Your task to perform on an android device: open sync settings in chrome Image 0: 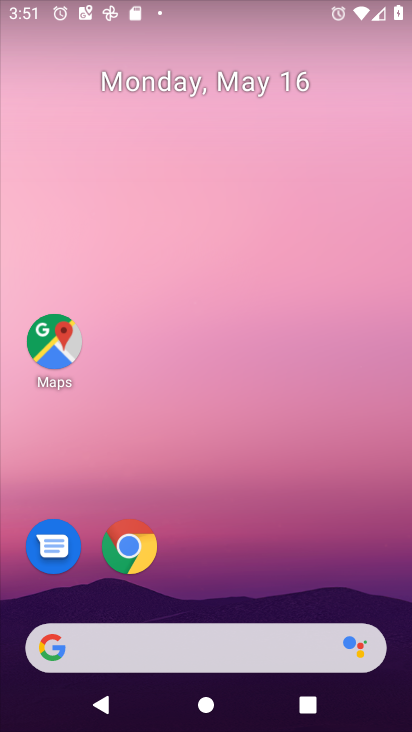
Step 0: drag from (383, 574) to (376, 42)
Your task to perform on an android device: open sync settings in chrome Image 1: 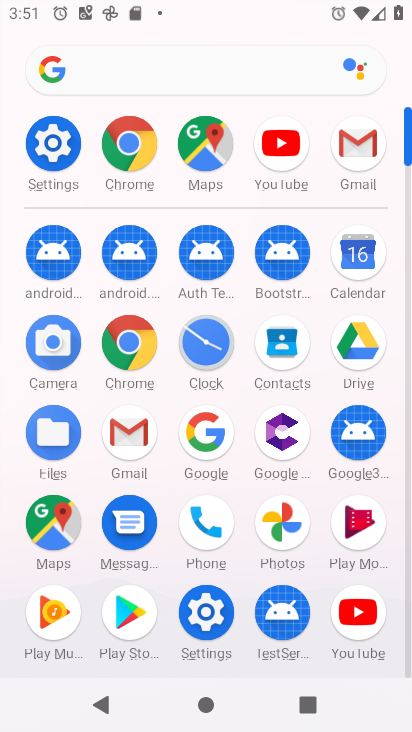
Step 1: click (135, 344)
Your task to perform on an android device: open sync settings in chrome Image 2: 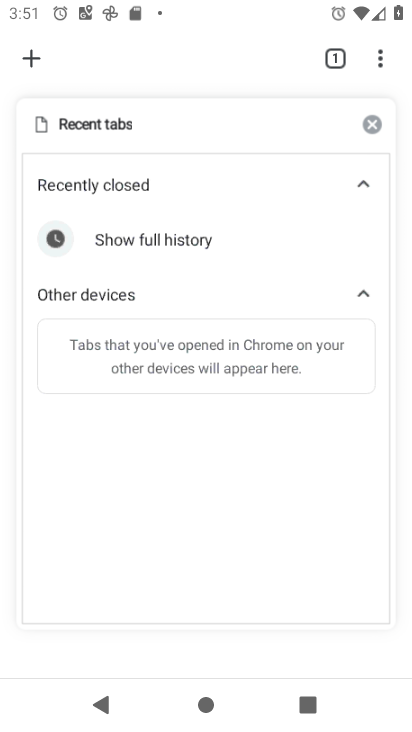
Step 2: click (379, 66)
Your task to perform on an android device: open sync settings in chrome Image 3: 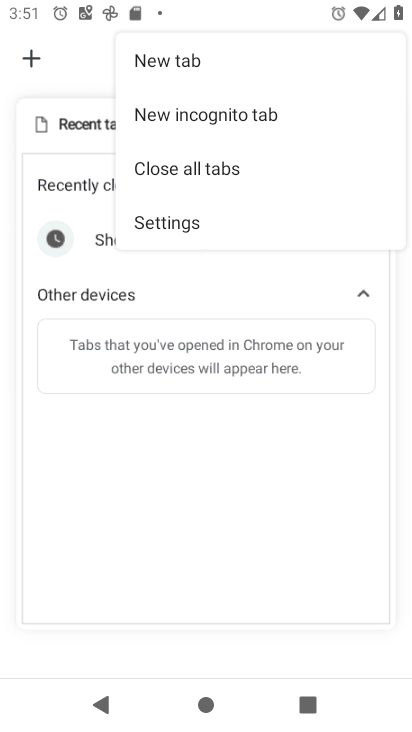
Step 3: click (266, 224)
Your task to perform on an android device: open sync settings in chrome Image 4: 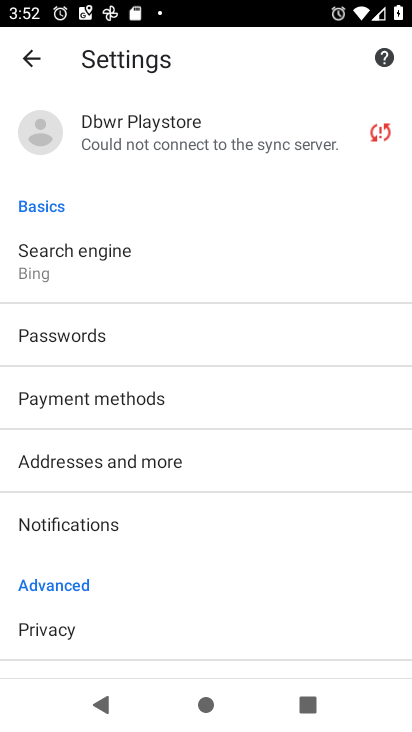
Step 4: drag from (285, 574) to (282, 418)
Your task to perform on an android device: open sync settings in chrome Image 5: 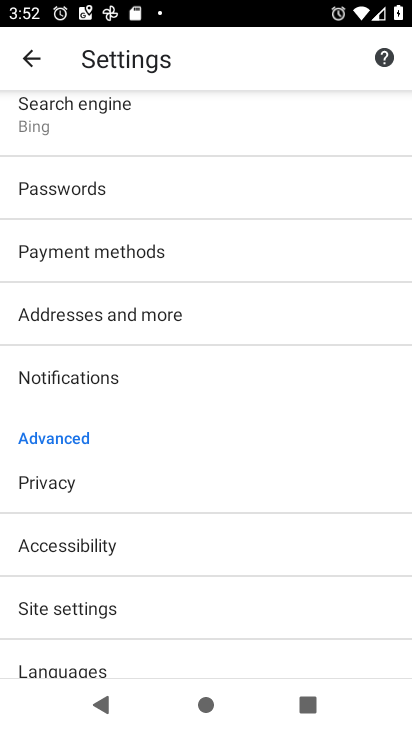
Step 5: drag from (296, 561) to (328, 414)
Your task to perform on an android device: open sync settings in chrome Image 6: 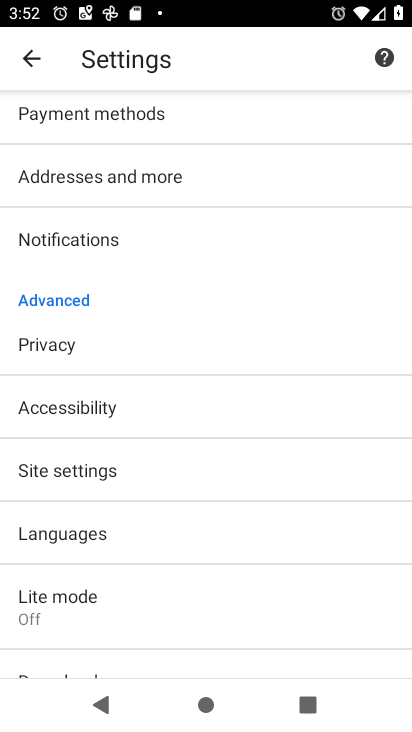
Step 6: drag from (273, 621) to (283, 433)
Your task to perform on an android device: open sync settings in chrome Image 7: 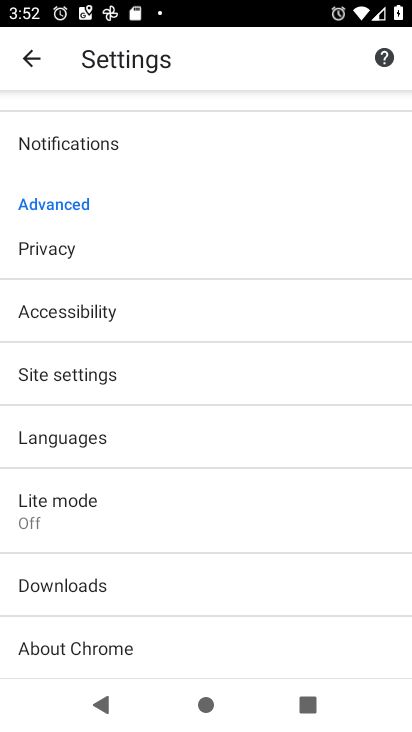
Step 7: drag from (247, 648) to (246, 492)
Your task to perform on an android device: open sync settings in chrome Image 8: 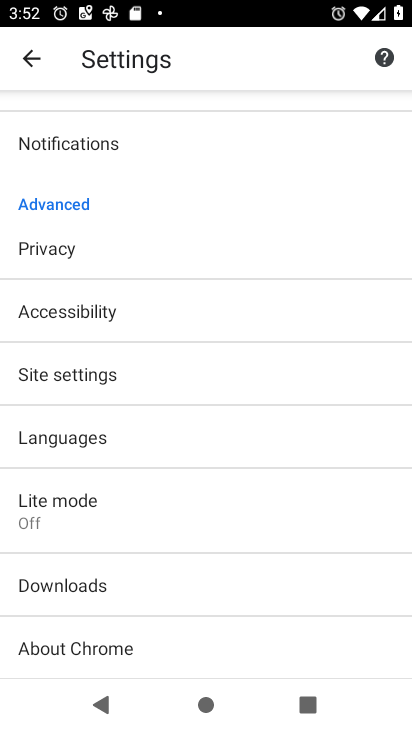
Step 8: click (185, 383)
Your task to perform on an android device: open sync settings in chrome Image 9: 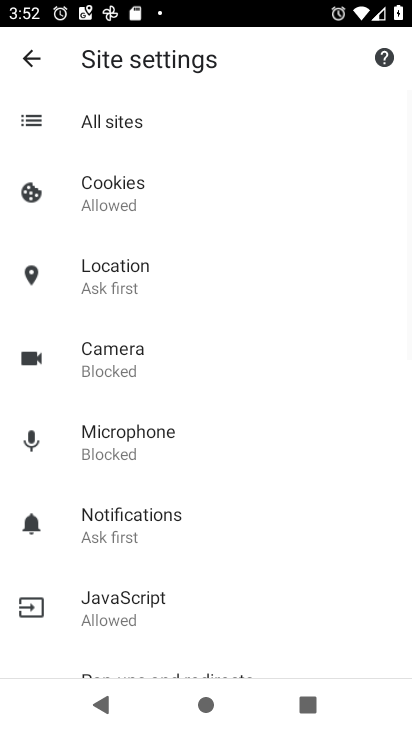
Step 9: drag from (312, 618) to (337, 442)
Your task to perform on an android device: open sync settings in chrome Image 10: 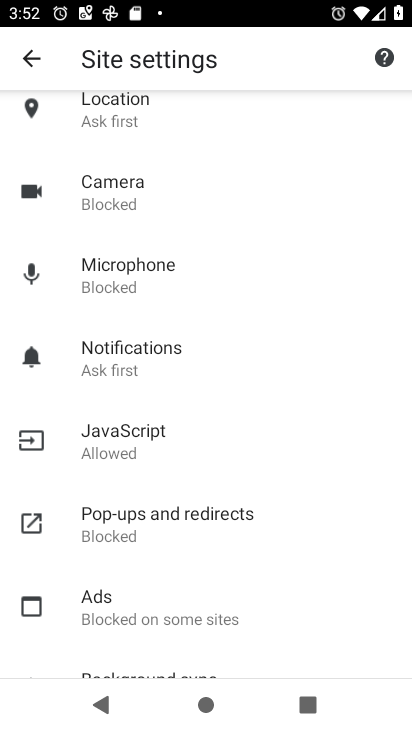
Step 10: drag from (312, 605) to (326, 456)
Your task to perform on an android device: open sync settings in chrome Image 11: 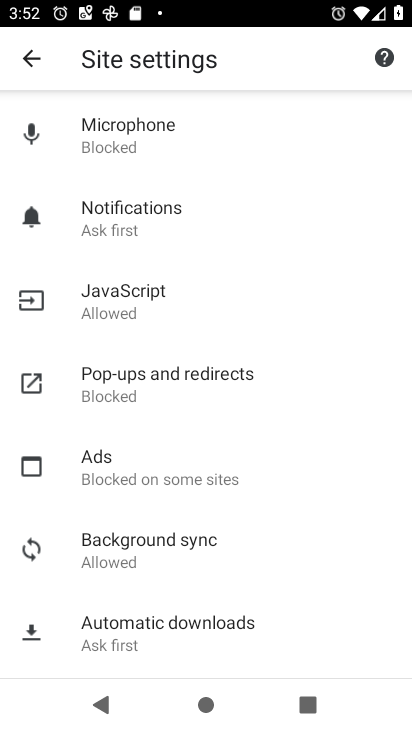
Step 11: drag from (313, 638) to (349, 433)
Your task to perform on an android device: open sync settings in chrome Image 12: 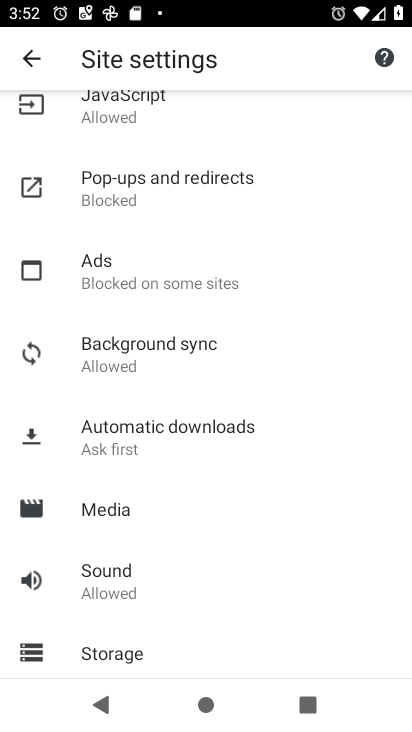
Step 12: drag from (329, 616) to (352, 453)
Your task to perform on an android device: open sync settings in chrome Image 13: 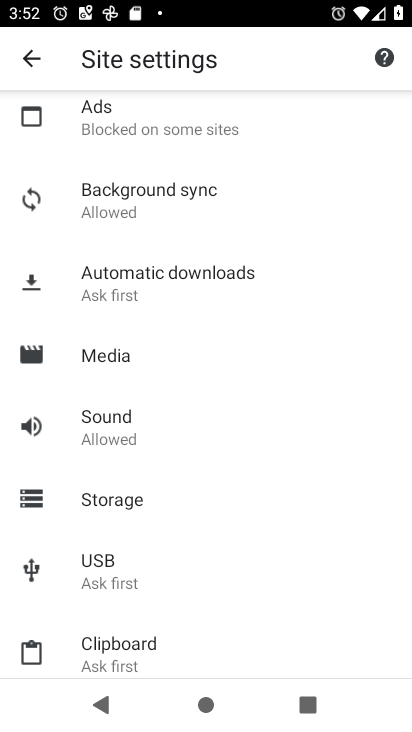
Step 13: drag from (322, 627) to (326, 492)
Your task to perform on an android device: open sync settings in chrome Image 14: 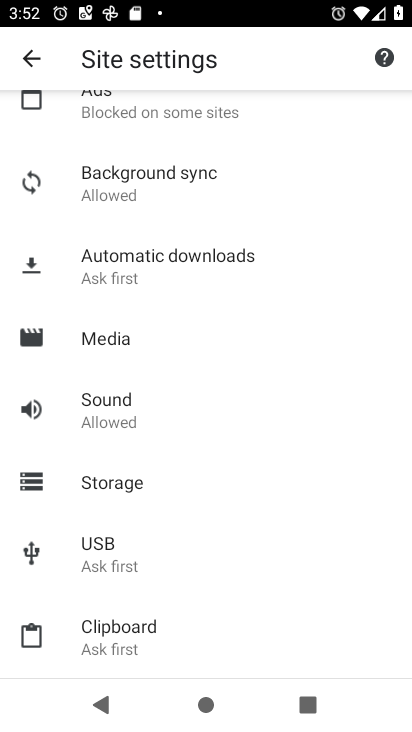
Step 14: drag from (315, 314) to (322, 455)
Your task to perform on an android device: open sync settings in chrome Image 15: 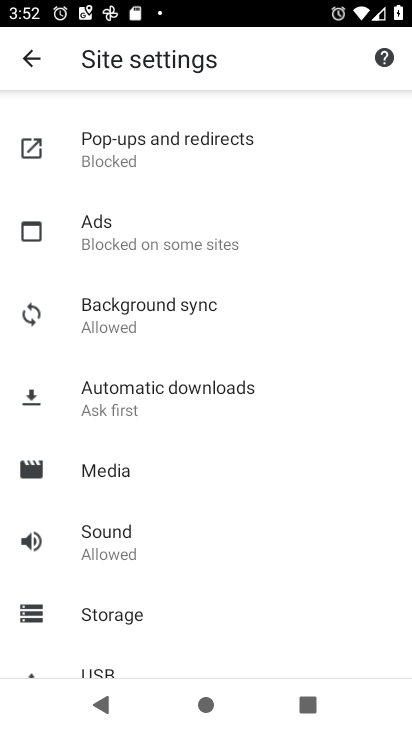
Step 15: drag from (326, 296) to (306, 425)
Your task to perform on an android device: open sync settings in chrome Image 16: 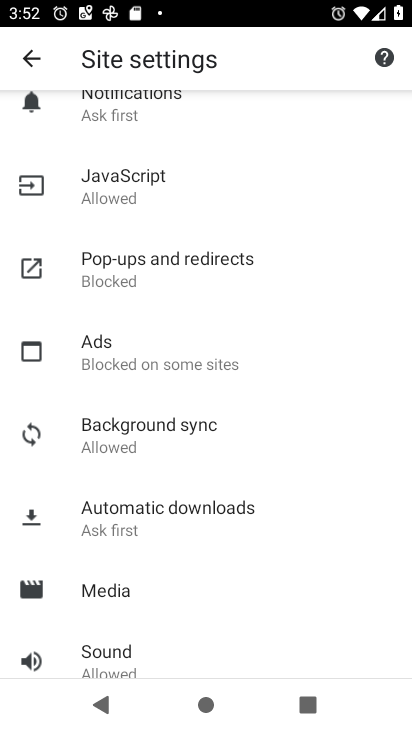
Step 16: drag from (311, 303) to (306, 408)
Your task to perform on an android device: open sync settings in chrome Image 17: 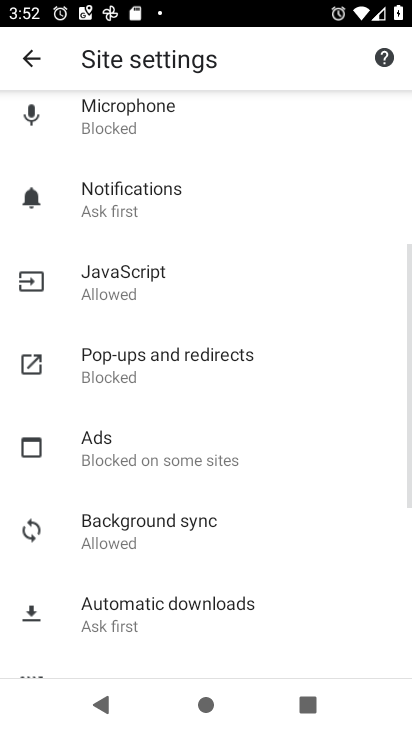
Step 17: drag from (310, 280) to (308, 409)
Your task to perform on an android device: open sync settings in chrome Image 18: 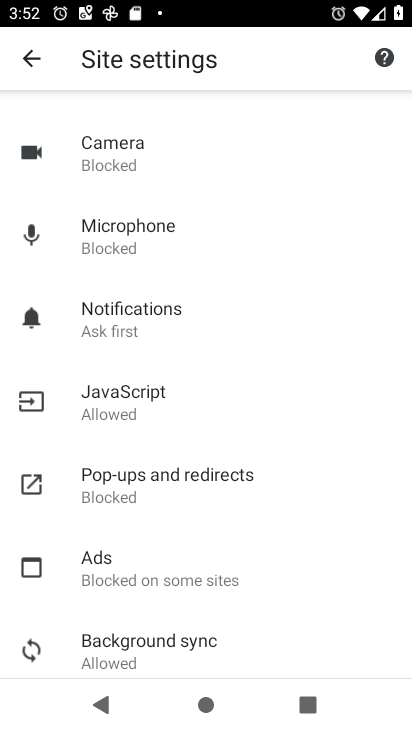
Step 18: drag from (297, 288) to (284, 418)
Your task to perform on an android device: open sync settings in chrome Image 19: 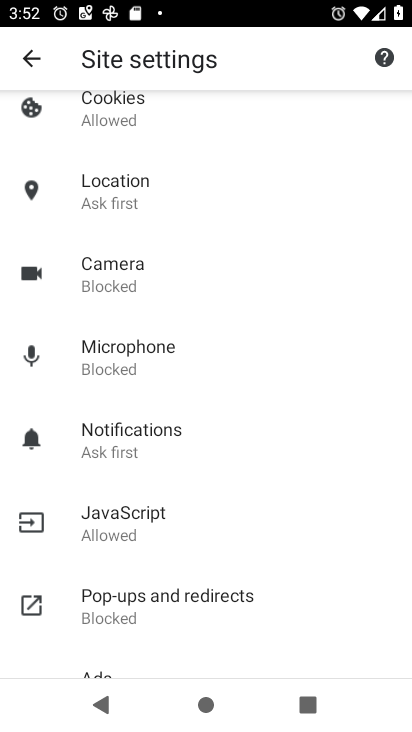
Step 19: drag from (292, 301) to (297, 423)
Your task to perform on an android device: open sync settings in chrome Image 20: 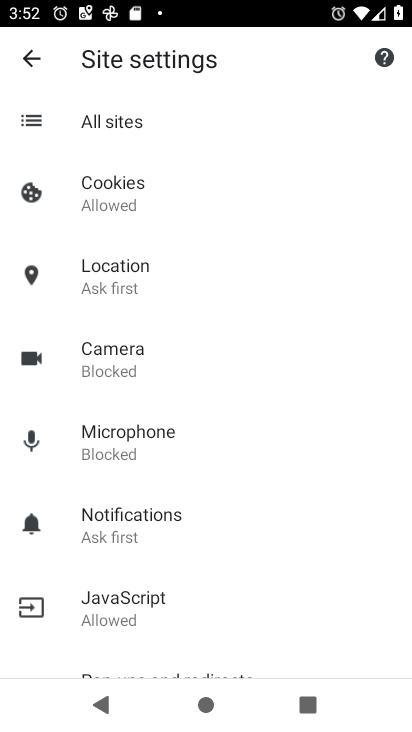
Step 20: drag from (284, 201) to (293, 371)
Your task to perform on an android device: open sync settings in chrome Image 21: 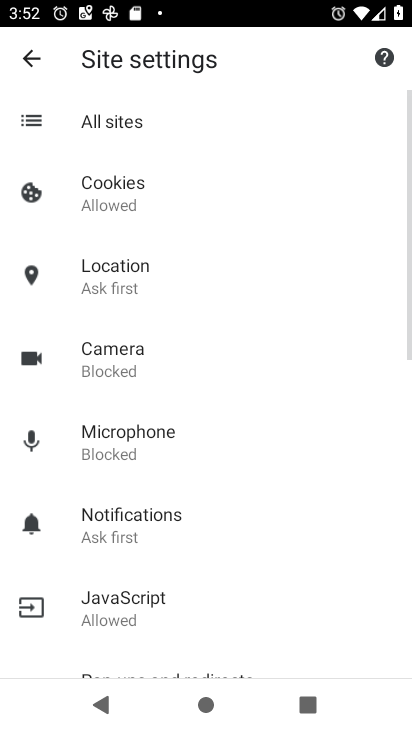
Step 21: drag from (308, 564) to (312, 392)
Your task to perform on an android device: open sync settings in chrome Image 22: 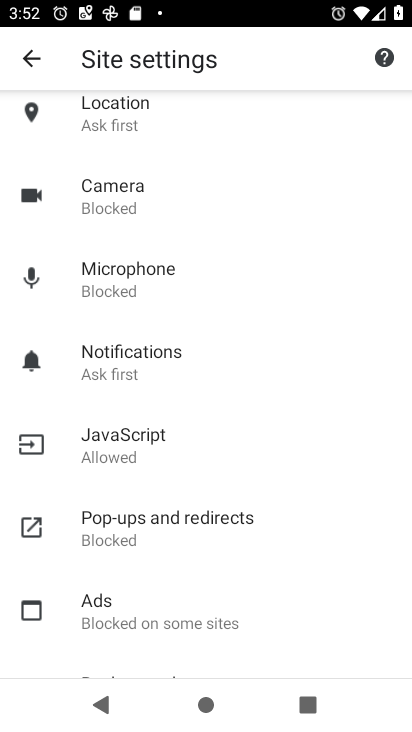
Step 22: drag from (274, 559) to (291, 345)
Your task to perform on an android device: open sync settings in chrome Image 23: 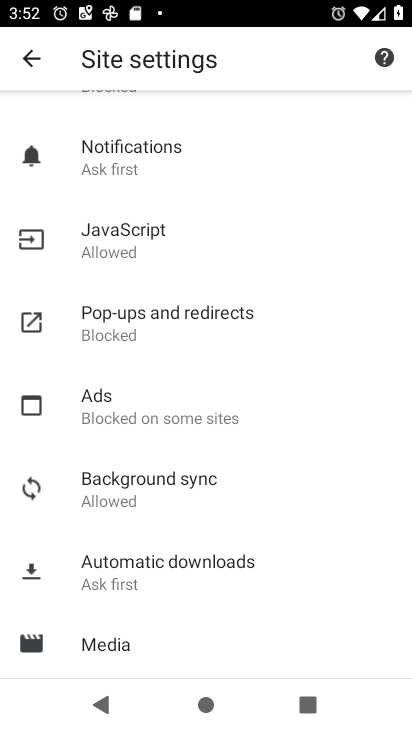
Step 23: click (224, 508)
Your task to perform on an android device: open sync settings in chrome Image 24: 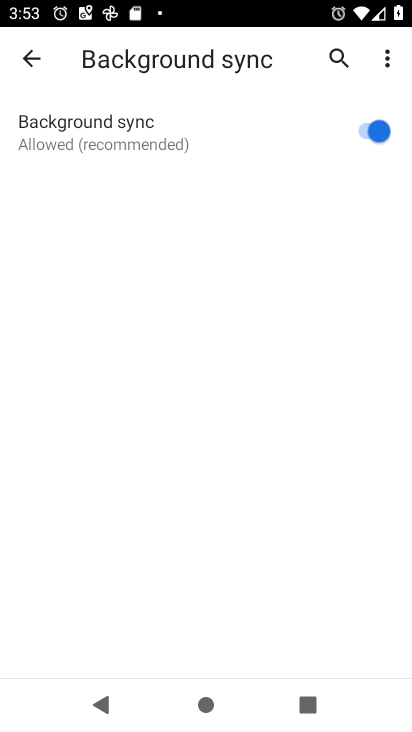
Step 24: task complete